Your task to perform on an android device: Go to Google Image 0: 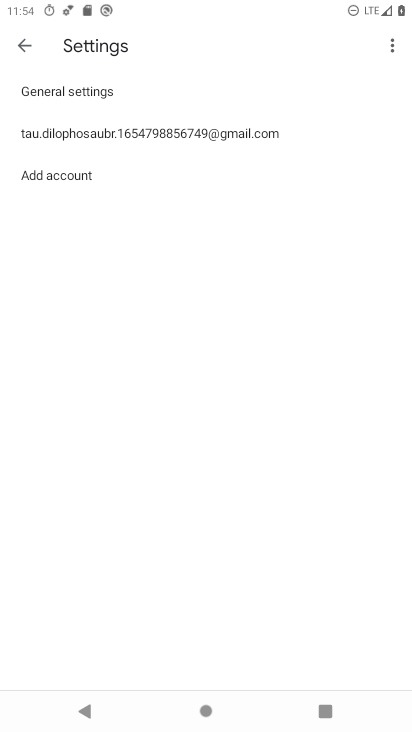
Step 0: press home button
Your task to perform on an android device: Go to Google Image 1: 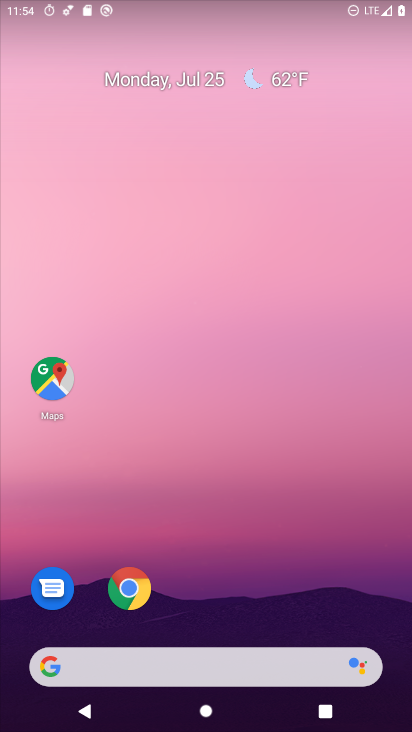
Step 1: click (147, 660)
Your task to perform on an android device: Go to Google Image 2: 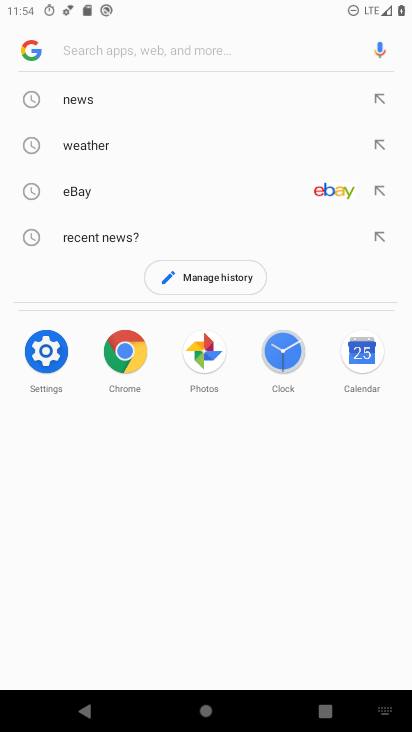
Step 2: click (23, 50)
Your task to perform on an android device: Go to Google Image 3: 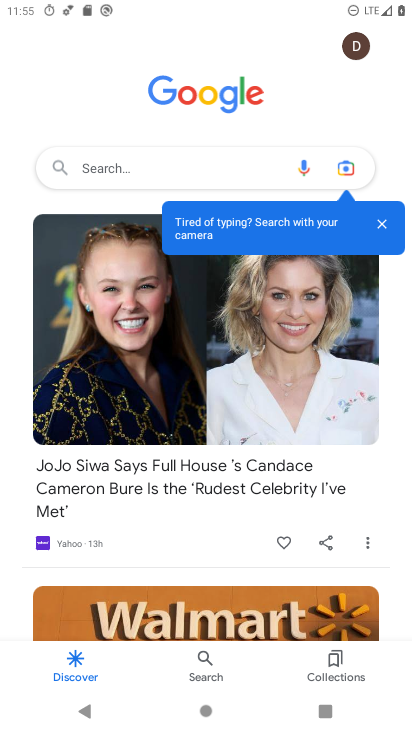
Step 3: task complete